Your task to perform on an android device: Open privacy settings Image 0: 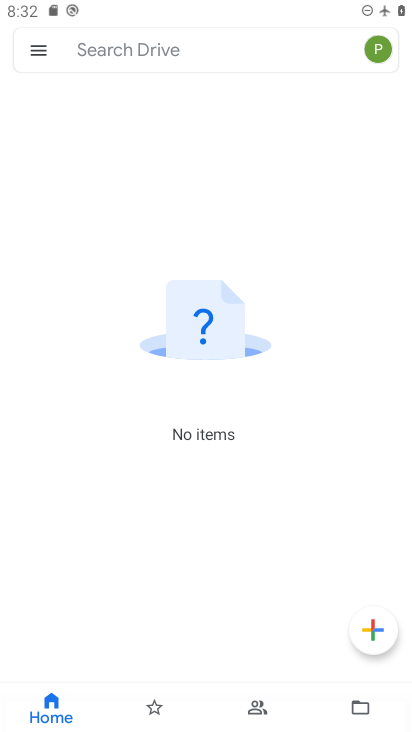
Step 0: press home button
Your task to perform on an android device: Open privacy settings Image 1: 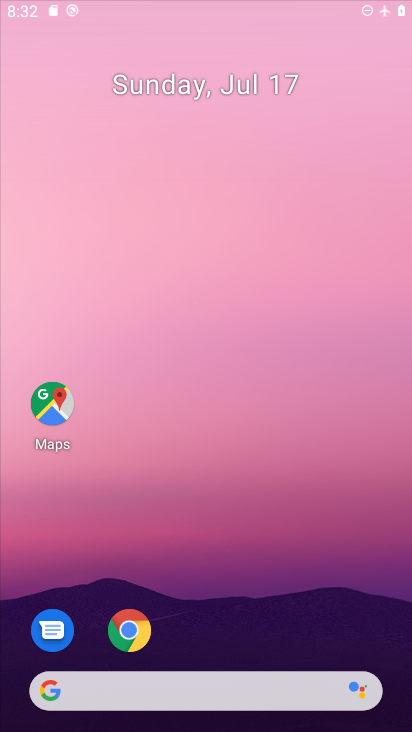
Step 1: drag from (280, 597) to (324, 14)
Your task to perform on an android device: Open privacy settings Image 2: 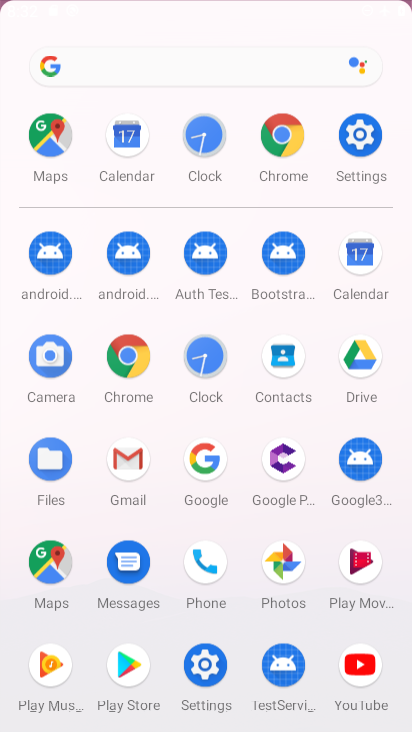
Step 2: click (357, 165)
Your task to perform on an android device: Open privacy settings Image 3: 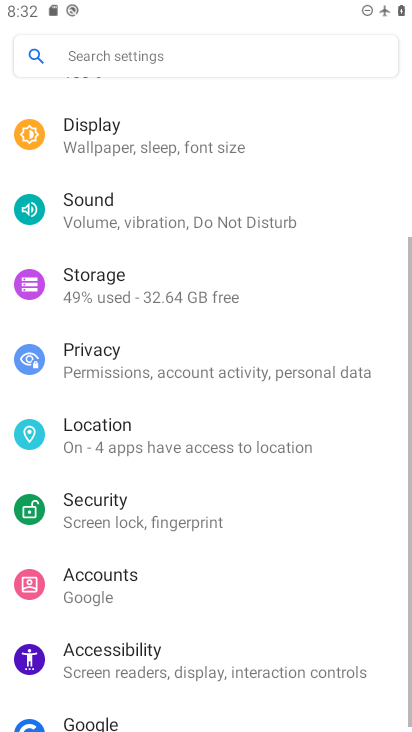
Step 3: click (155, 359)
Your task to perform on an android device: Open privacy settings Image 4: 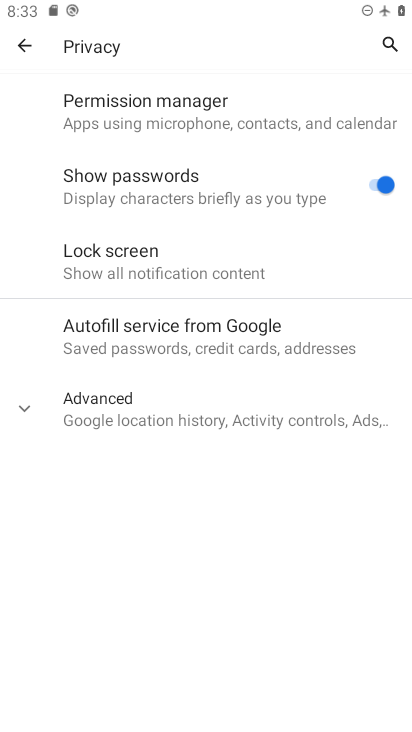
Step 4: task complete